Your task to perform on an android device: change timer sound Image 0: 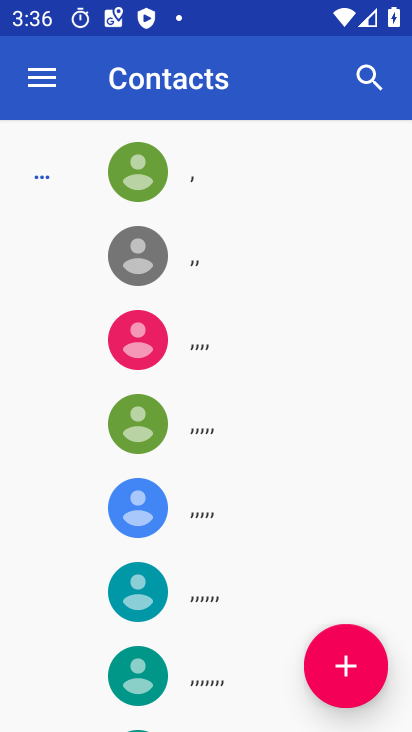
Step 0: click (164, 201)
Your task to perform on an android device: change timer sound Image 1: 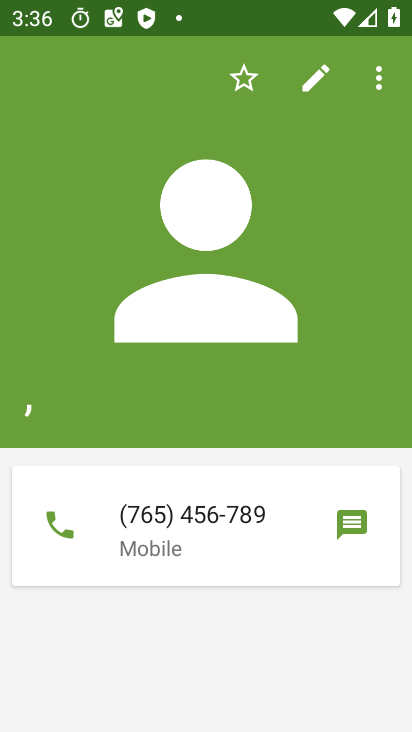
Step 1: press home button
Your task to perform on an android device: change timer sound Image 2: 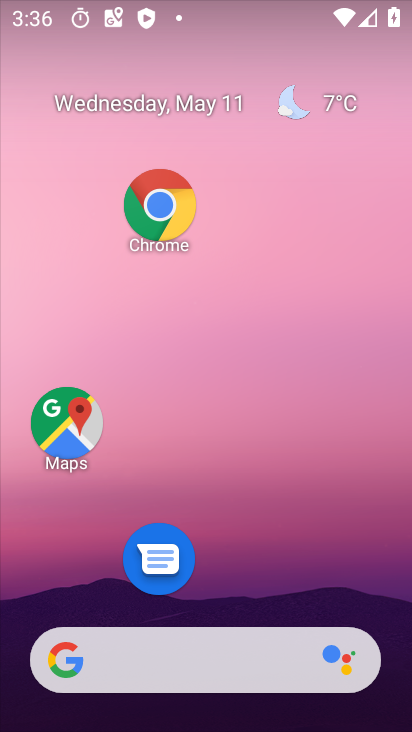
Step 2: drag from (143, 628) to (176, 275)
Your task to perform on an android device: change timer sound Image 3: 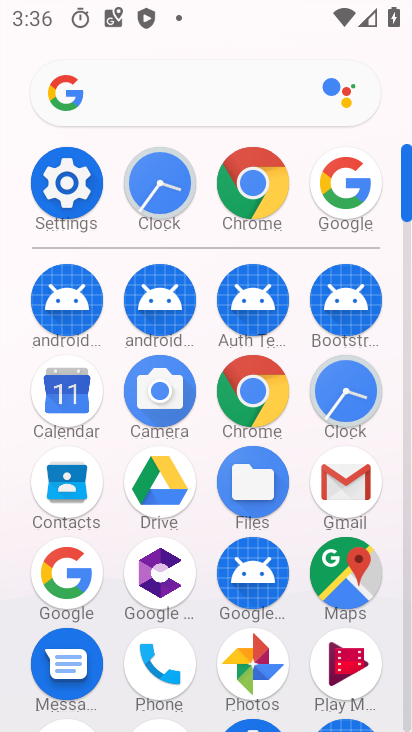
Step 3: click (349, 399)
Your task to perform on an android device: change timer sound Image 4: 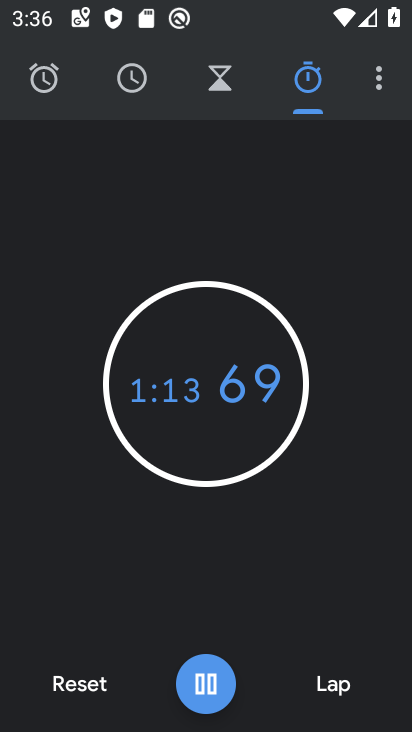
Step 4: click (380, 77)
Your task to perform on an android device: change timer sound Image 5: 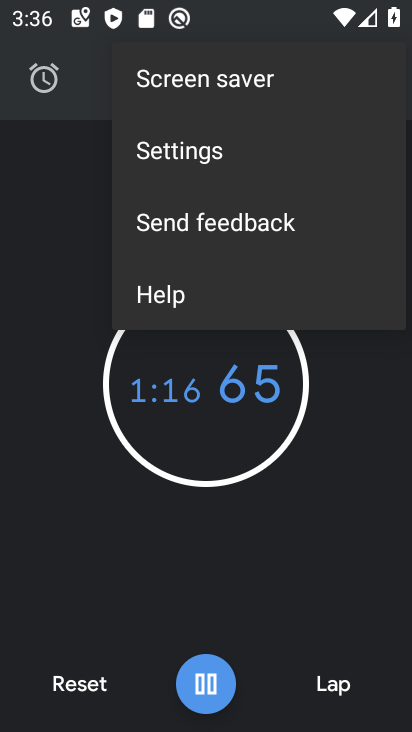
Step 5: click (182, 154)
Your task to perform on an android device: change timer sound Image 6: 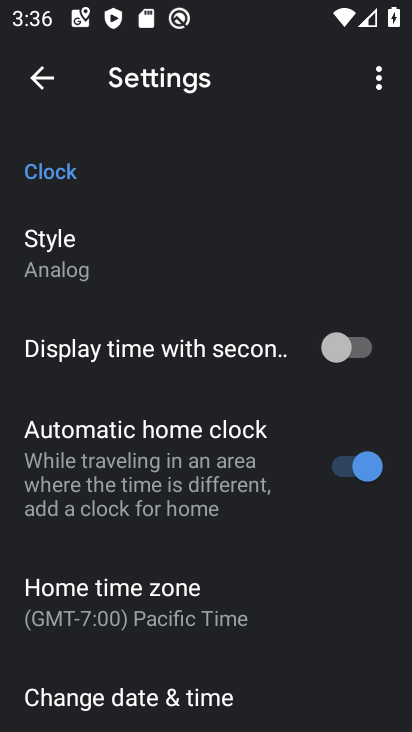
Step 6: drag from (72, 711) to (72, 297)
Your task to perform on an android device: change timer sound Image 7: 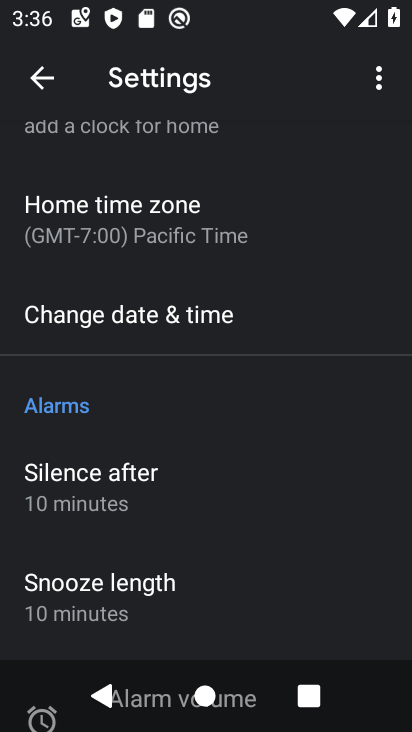
Step 7: drag from (122, 600) to (161, 281)
Your task to perform on an android device: change timer sound Image 8: 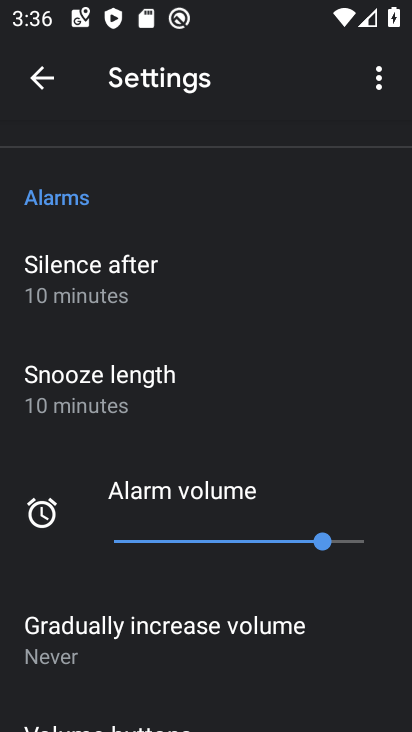
Step 8: drag from (160, 686) to (205, 300)
Your task to perform on an android device: change timer sound Image 9: 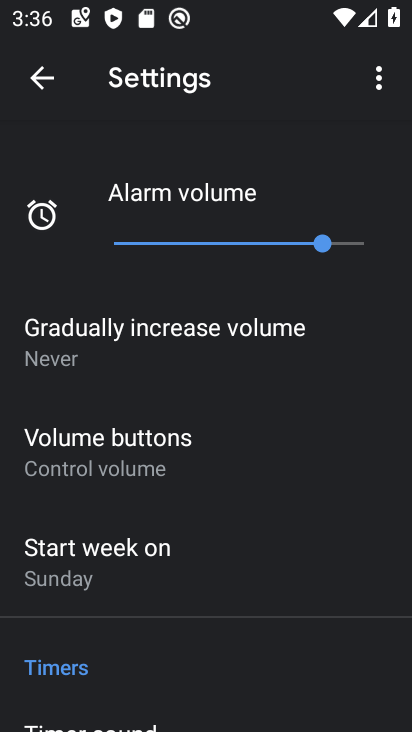
Step 9: drag from (162, 657) to (165, 326)
Your task to perform on an android device: change timer sound Image 10: 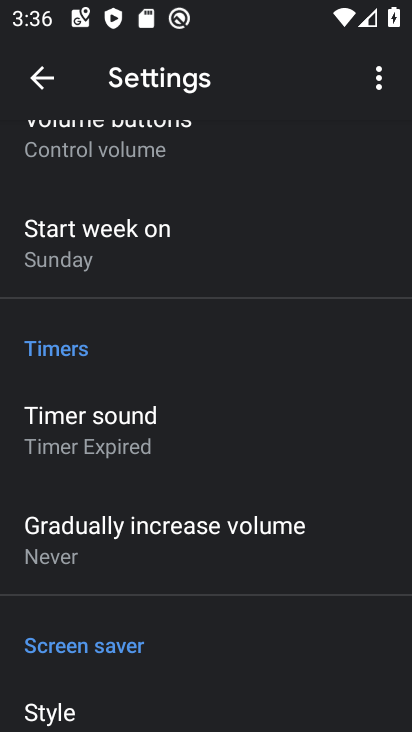
Step 10: click (110, 427)
Your task to perform on an android device: change timer sound Image 11: 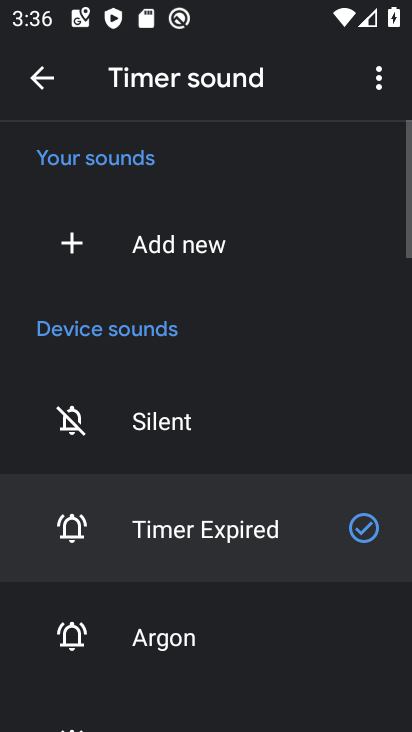
Step 11: click (153, 648)
Your task to perform on an android device: change timer sound Image 12: 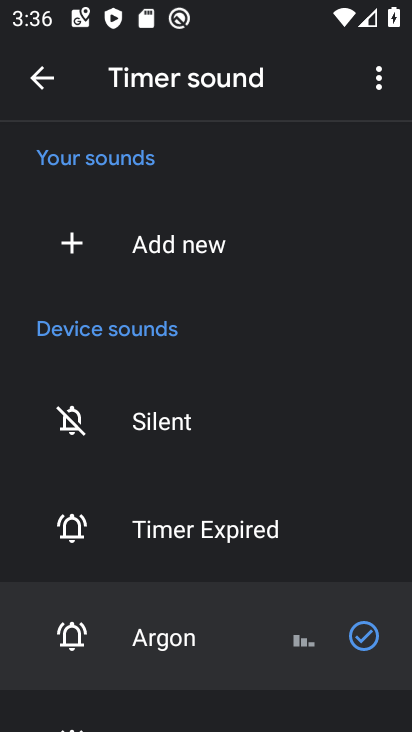
Step 12: task complete